Your task to perform on an android device: Go to CNN.com Image 0: 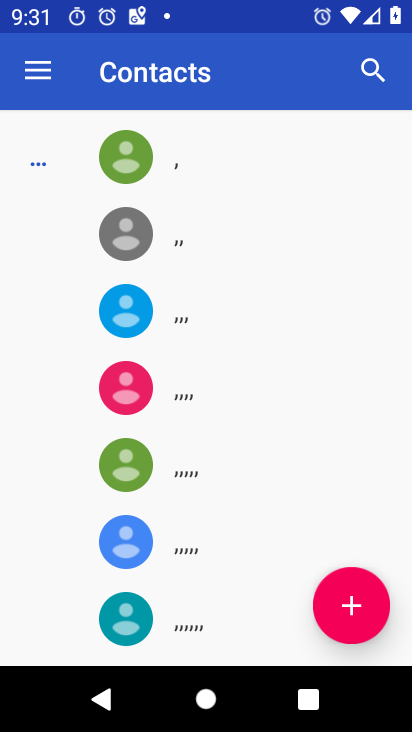
Step 0: press back button
Your task to perform on an android device: Go to CNN.com Image 1: 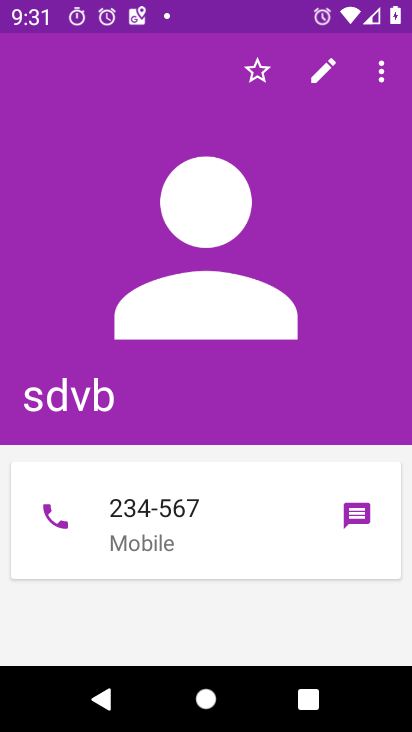
Step 1: press home button
Your task to perform on an android device: Go to CNN.com Image 2: 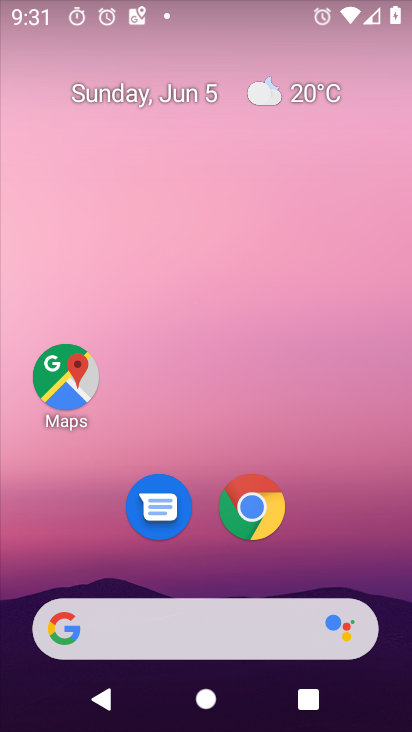
Step 2: drag from (304, 413) to (230, 26)
Your task to perform on an android device: Go to CNN.com Image 3: 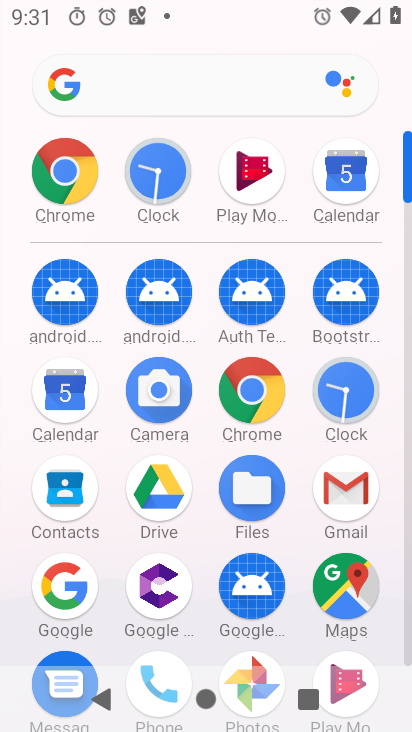
Step 3: click (64, 164)
Your task to perform on an android device: Go to CNN.com Image 4: 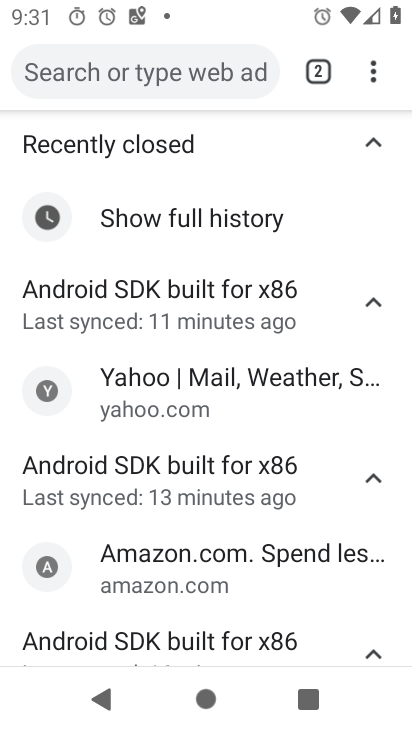
Step 4: click (206, 73)
Your task to perform on an android device: Go to CNN.com Image 5: 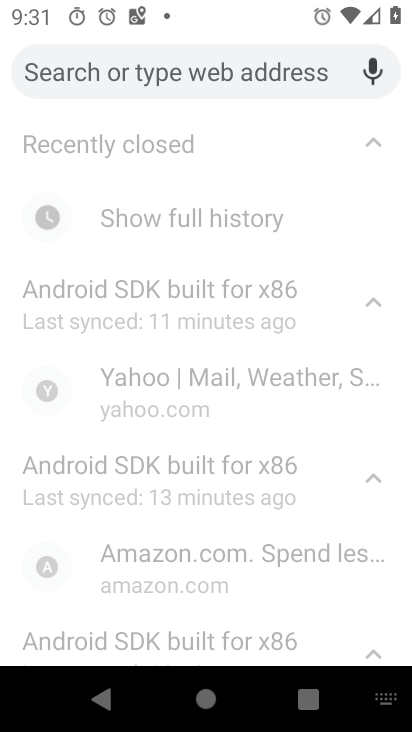
Step 5: type "CNN.com"
Your task to perform on an android device: Go to CNN.com Image 6: 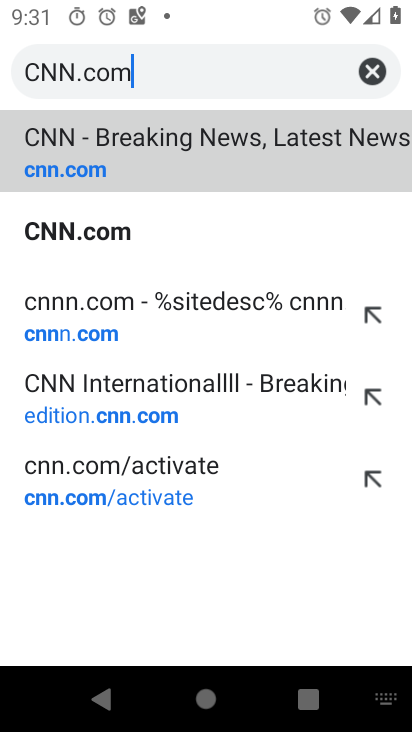
Step 6: type ""
Your task to perform on an android device: Go to CNN.com Image 7: 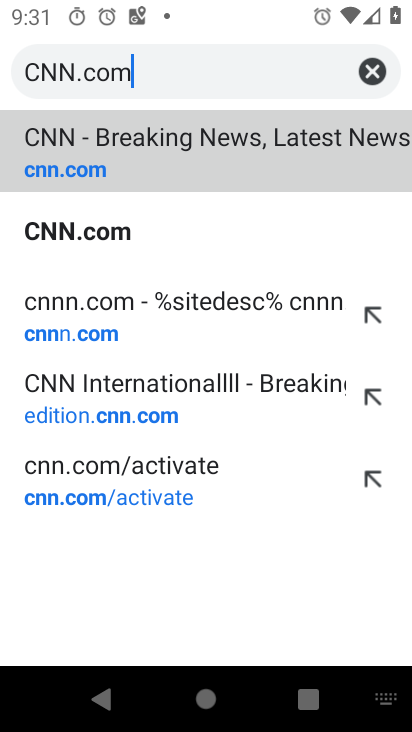
Step 7: click (176, 150)
Your task to perform on an android device: Go to CNN.com Image 8: 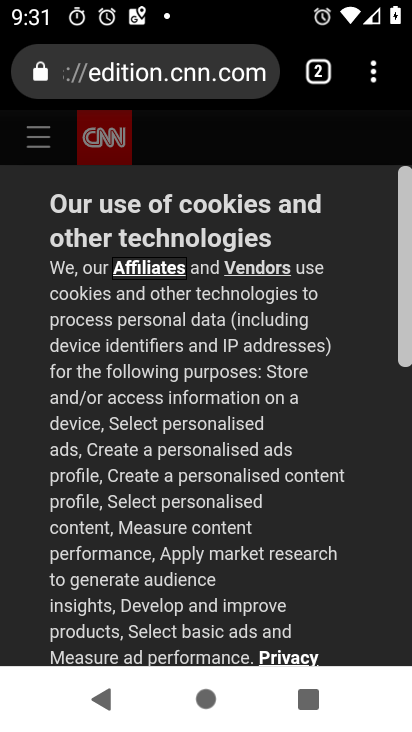
Step 8: drag from (324, 558) to (346, 160)
Your task to perform on an android device: Go to CNN.com Image 9: 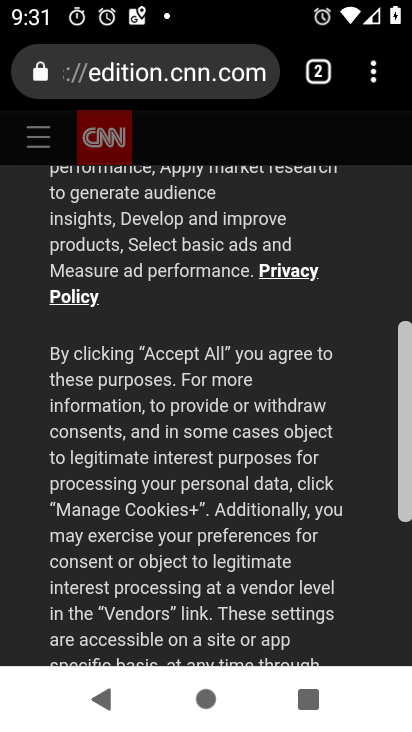
Step 9: drag from (286, 590) to (314, 198)
Your task to perform on an android device: Go to CNN.com Image 10: 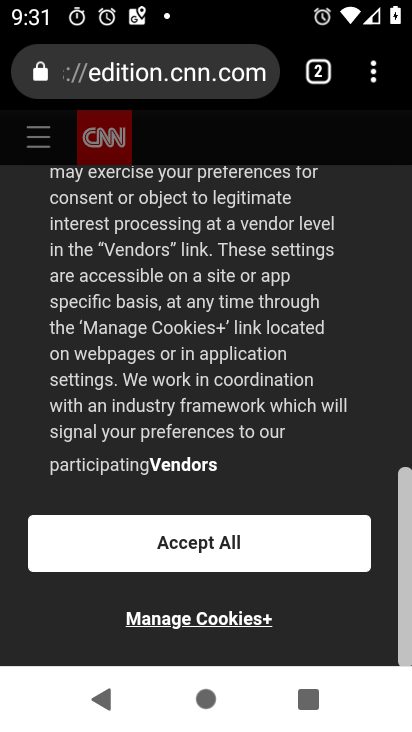
Step 10: click (234, 550)
Your task to perform on an android device: Go to CNN.com Image 11: 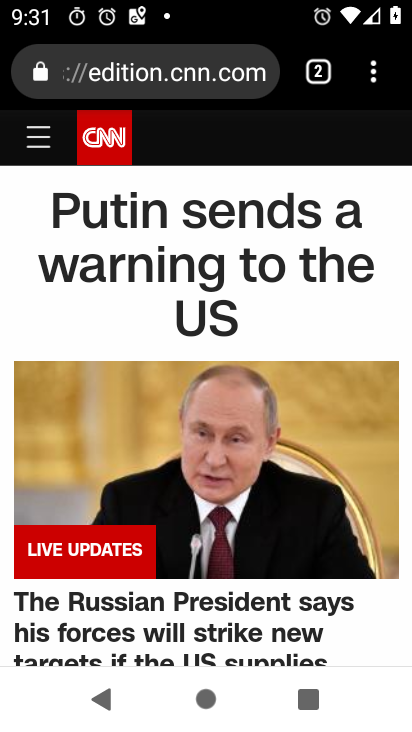
Step 11: task complete